Your task to perform on an android device: Go to battery settings Image 0: 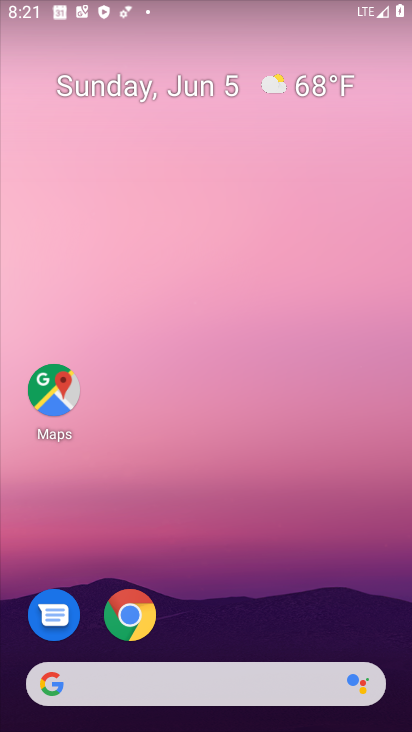
Step 0: drag from (259, 709) to (271, 198)
Your task to perform on an android device: Go to battery settings Image 1: 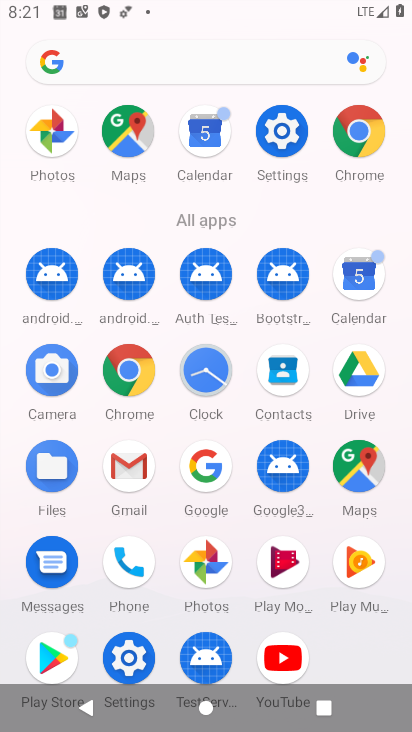
Step 1: click (266, 145)
Your task to perform on an android device: Go to battery settings Image 2: 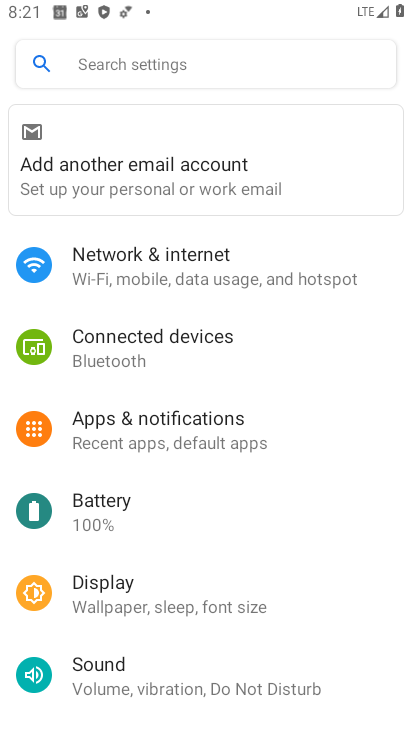
Step 2: click (89, 530)
Your task to perform on an android device: Go to battery settings Image 3: 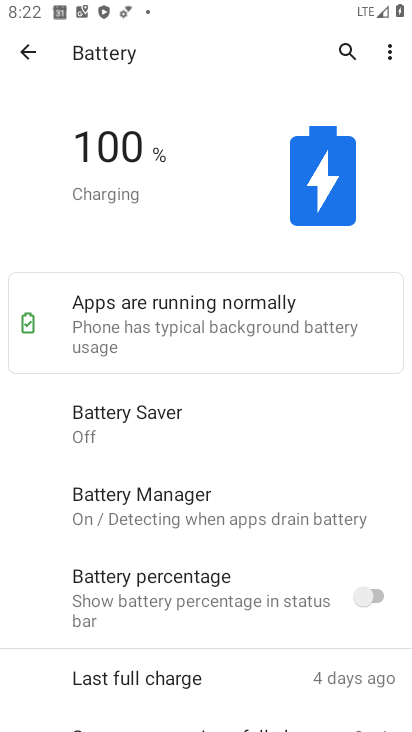
Step 3: task complete